Your task to perform on an android device: set an alarm Image 0: 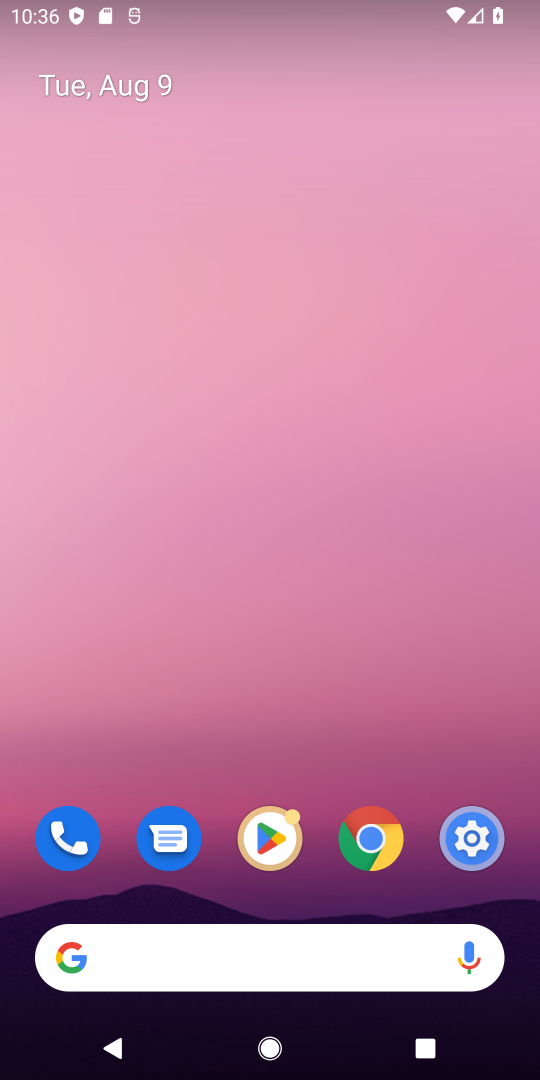
Step 0: drag from (361, 1044) to (437, 106)
Your task to perform on an android device: set an alarm Image 1: 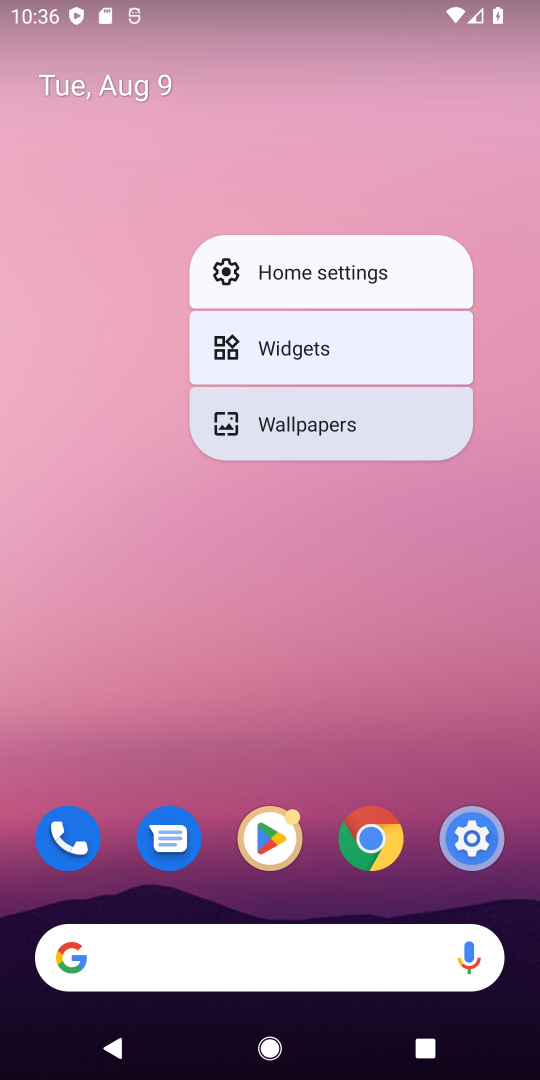
Step 1: click (349, 646)
Your task to perform on an android device: set an alarm Image 2: 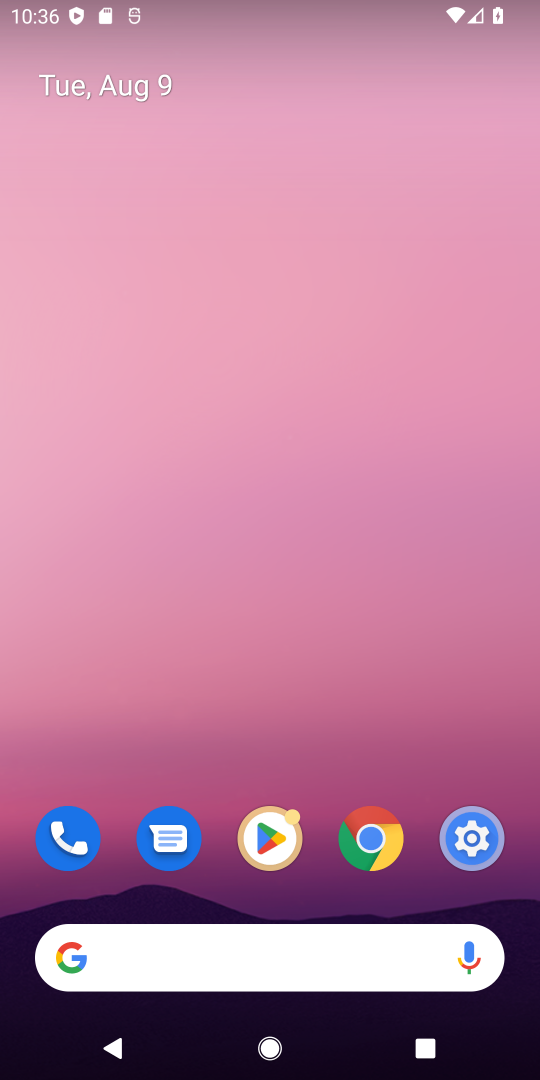
Step 2: drag from (367, 1050) to (306, 367)
Your task to perform on an android device: set an alarm Image 3: 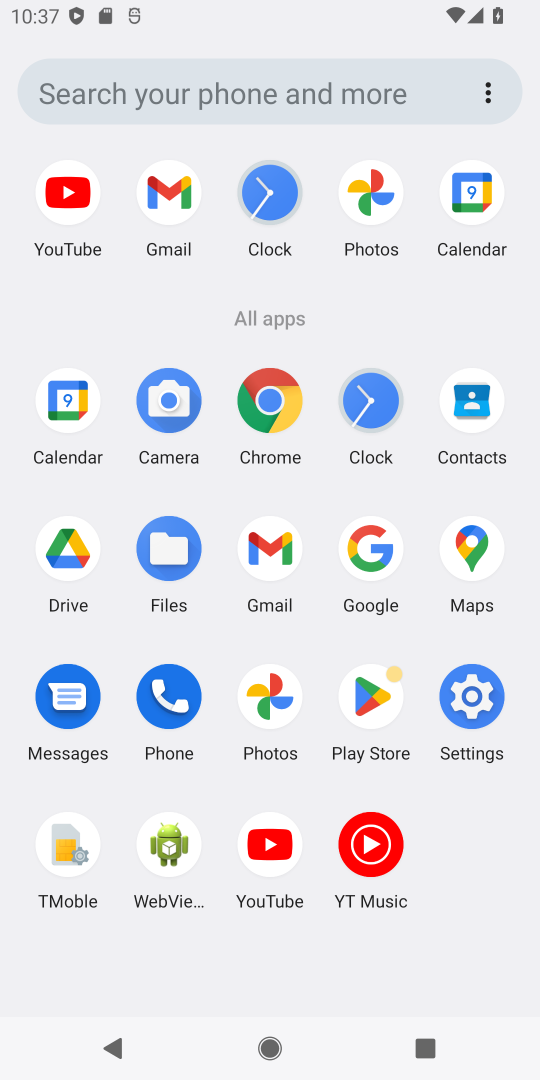
Step 3: click (377, 439)
Your task to perform on an android device: set an alarm Image 4: 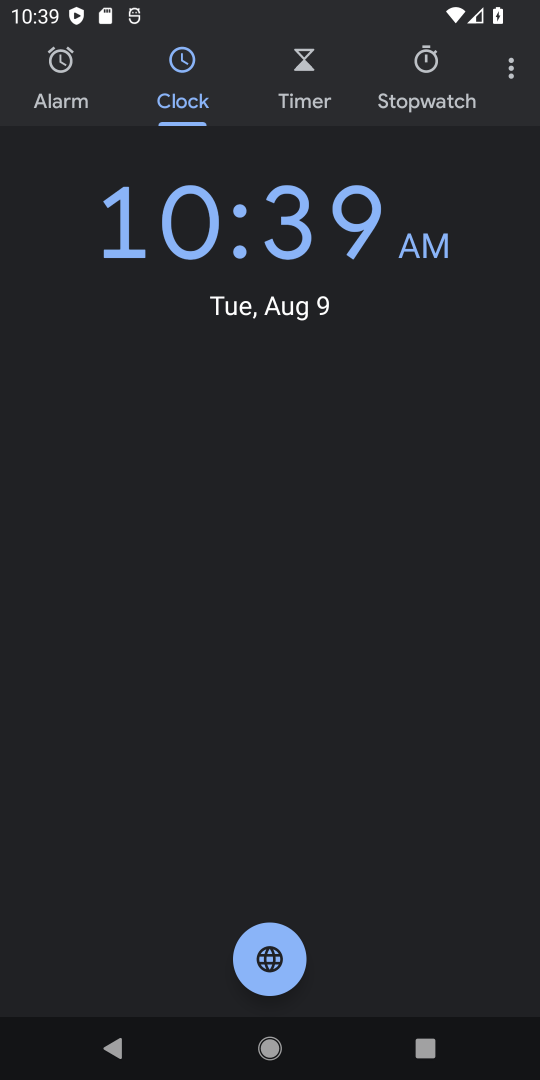
Step 4: click (62, 78)
Your task to perform on an android device: set an alarm Image 5: 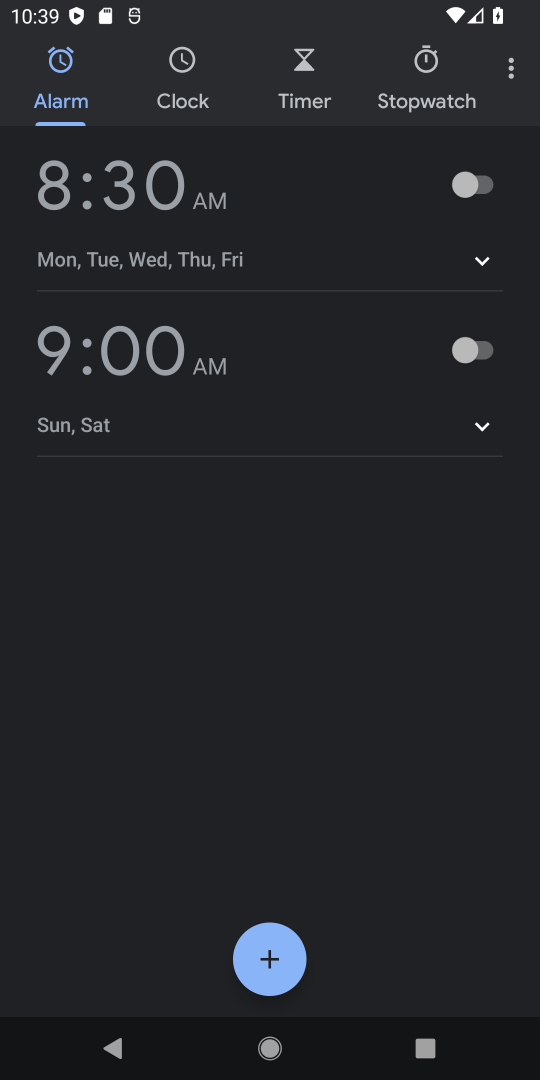
Step 5: click (264, 958)
Your task to perform on an android device: set an alarm Image 6: 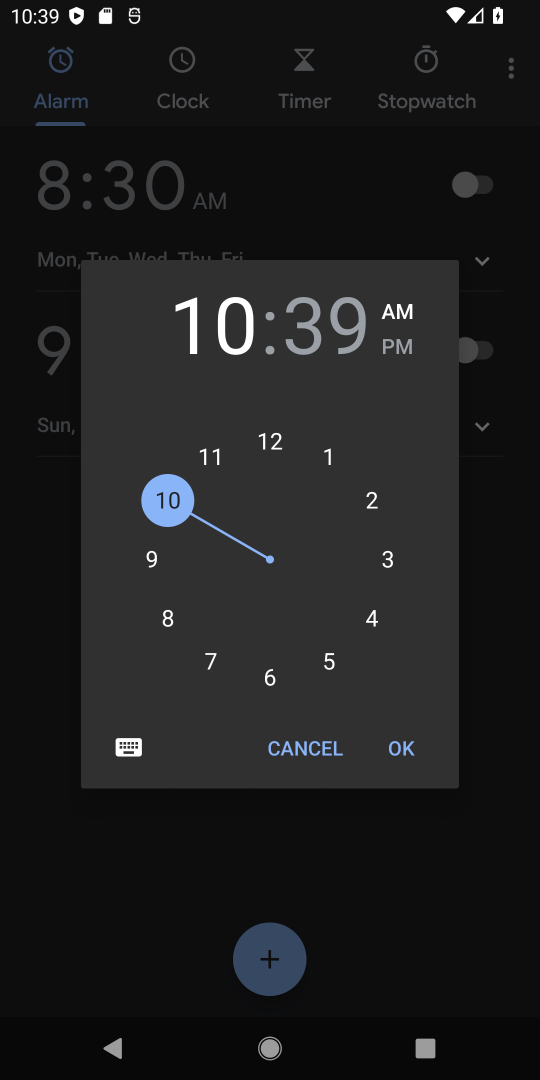
Step 6: click (400, 750)
Your task to perform on an android device: set an alarm Image 7: 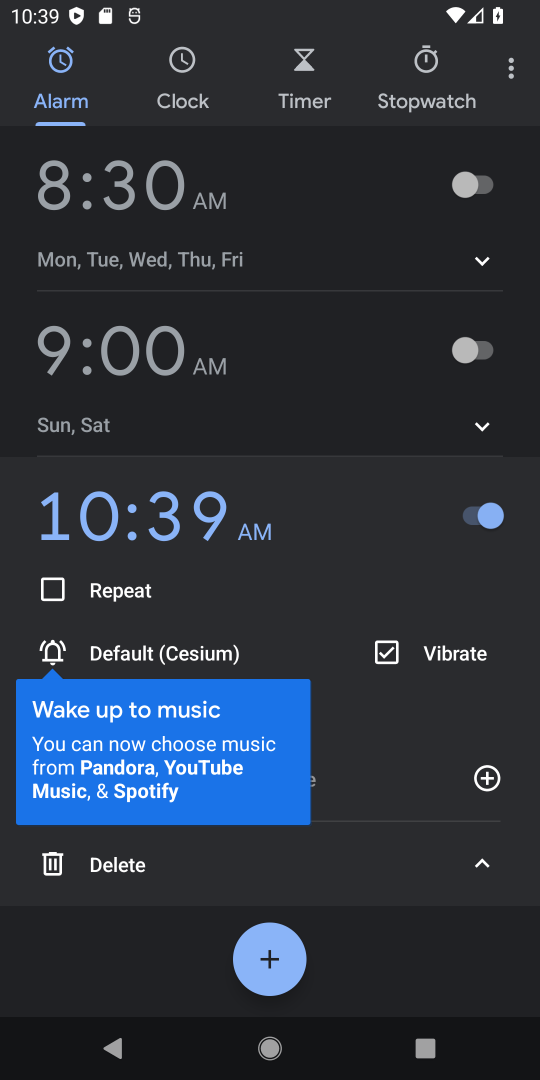
Step 7: task complete